Your task to perform on an android device: Open the map Image 0: 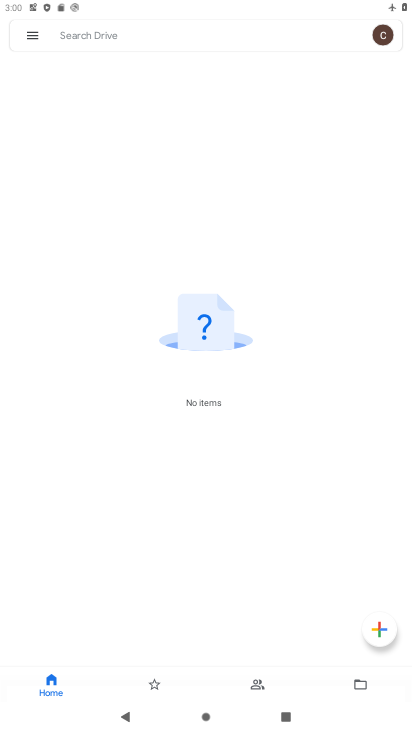
Step 0: press home button
Your task to perform on an android device: Open the map Image 1: 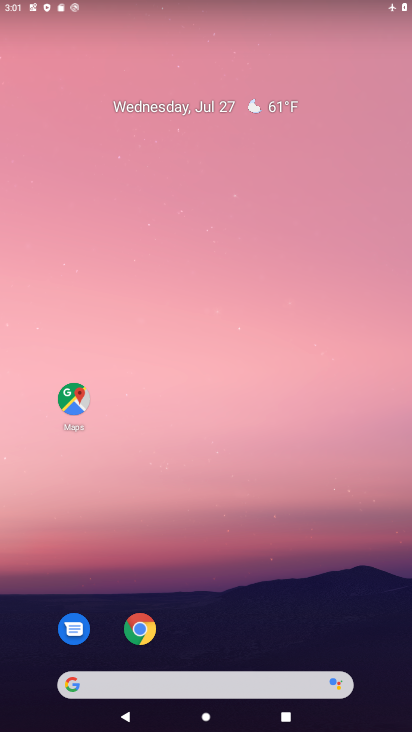
Step 1: click (71, 398)
Your task to perform on an android device: Open the map Image 2: 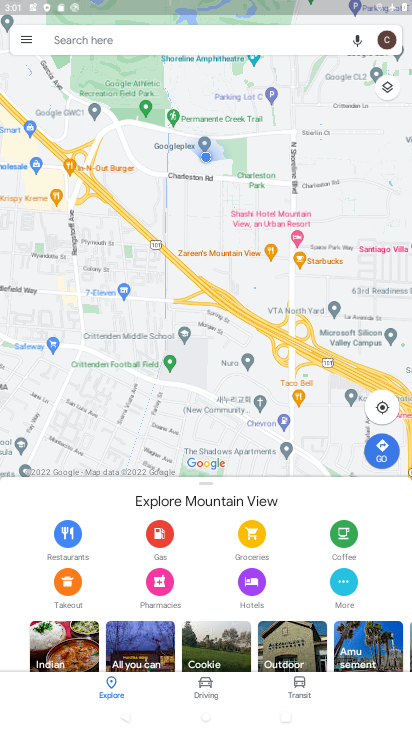
Step 2: task complete